Your task to perform on an android device: Find coffee shops on Maps Image 0: 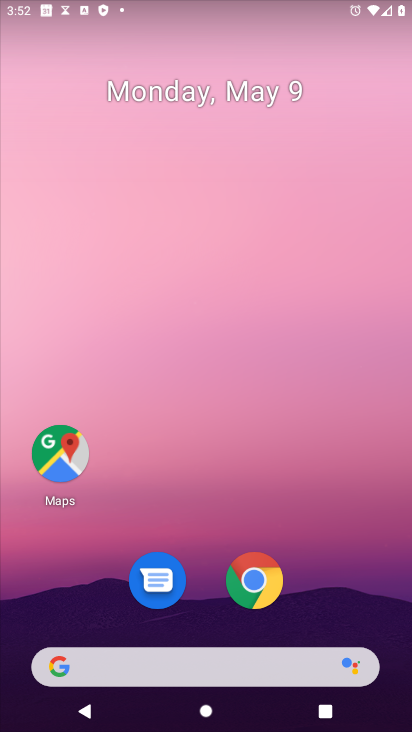
Step 0: click (69, 454)
Your task to perform on an android device: Find coffee shops on Maps Image 1: 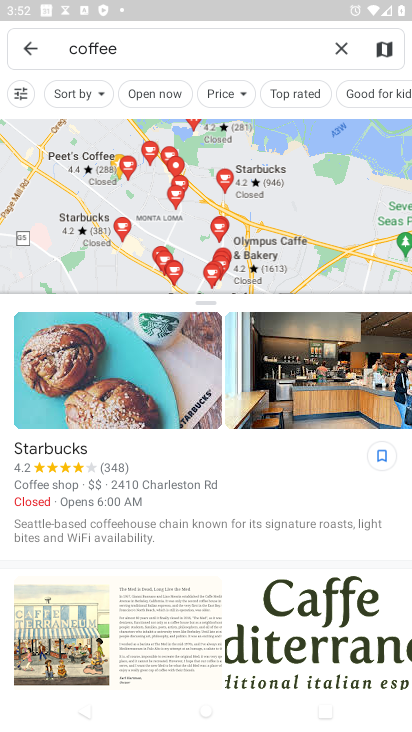
Step 1: task complete